Your task to perform on an android device: toggle location history Image 0: 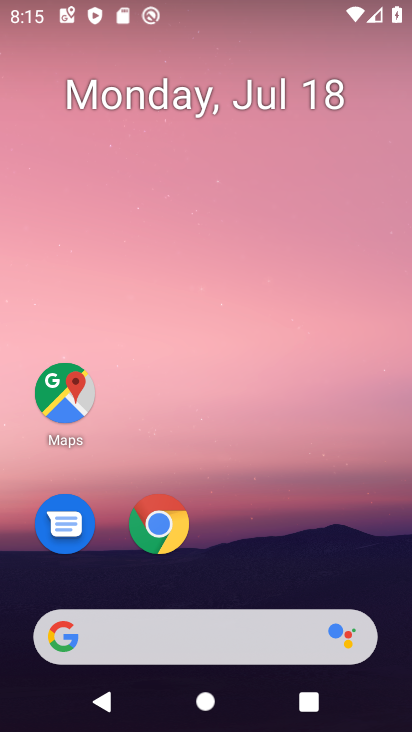
Step 0: drag from (261, 550) to (236, 108)
Your task to perform on an android device: toggle location history Image 1: 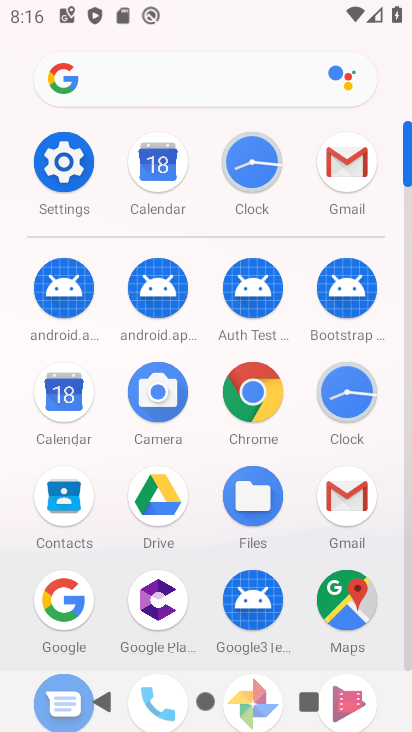
Step 1: click (69, 165)
Your task to perform on an android device: toggle location history Image 2: 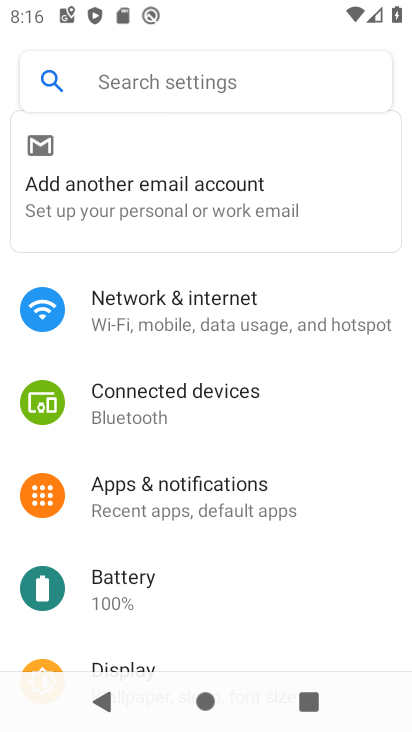
Step 2: drag from (202, 571) to (289, 184)
Your task to perform on an android device: toggle location history Image 3: 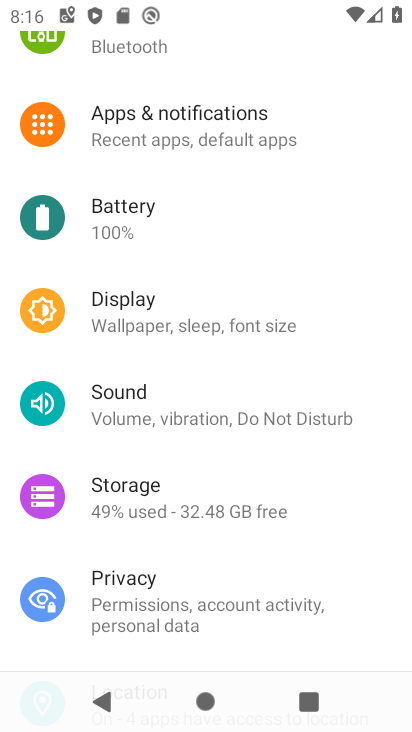
Step 3: drag from (258, 453) to (248, 96)
Your task to perform on an android device: toggle location history Image 4: 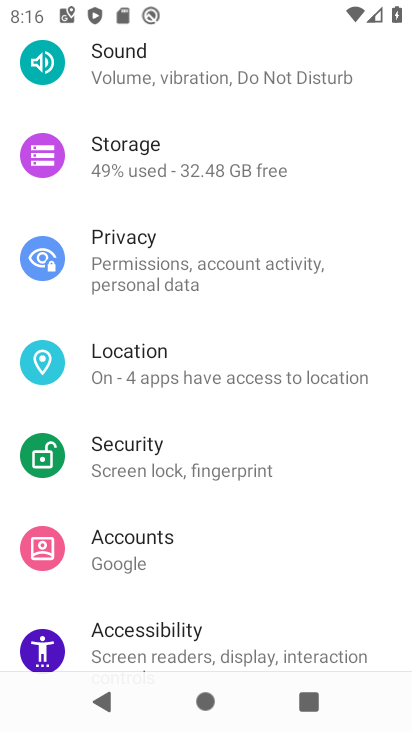
Step 4: click (218, 372)
Your task to perform on an android device: toggle location history Image 5: 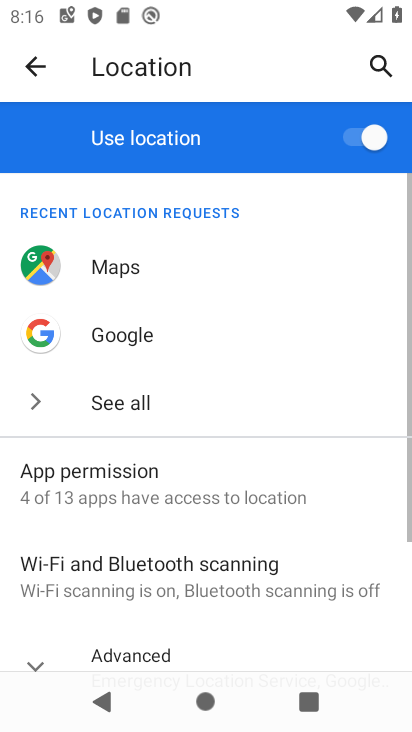
Step 5: drag from (209, 490) to (245, 221)
Your task to perform on an android device: toggle location history Image 6: 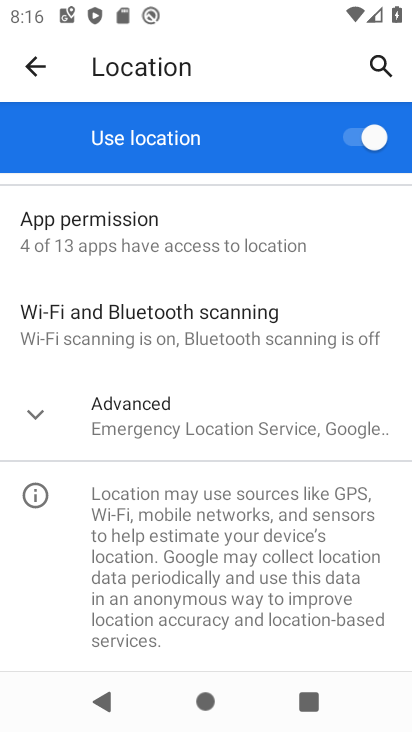
Step 6: click (34, 410)
Your task to perform on an android device: toggle location history Image 7: 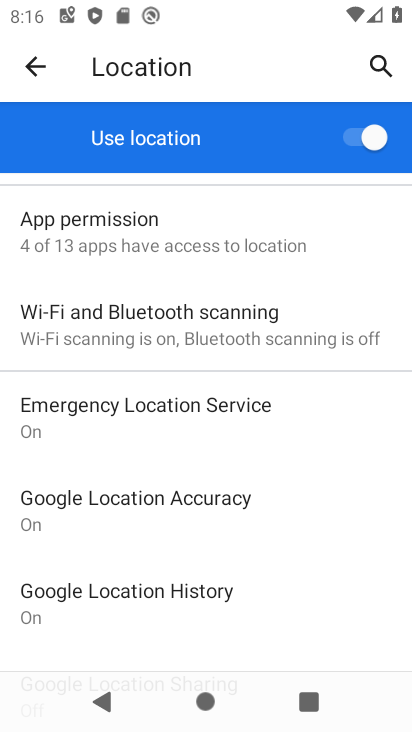
Step 7: click (137, 596)
Your task to perform on an android device: toggle location history Image 8: 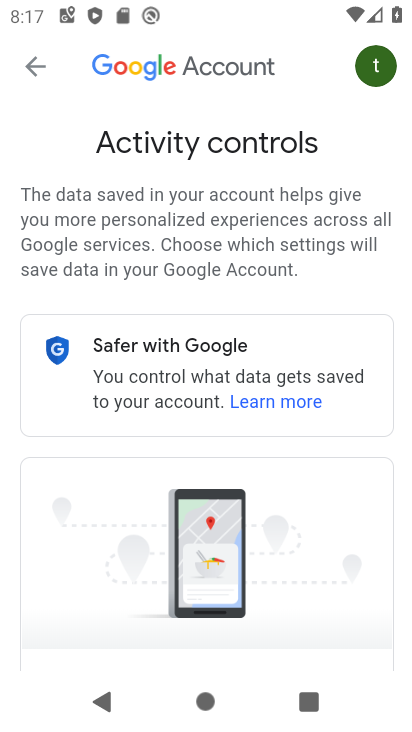
Step 8: drag from (276, 557) to (288, 149)
Your task to perform on an android device: toggle location history Image 9: 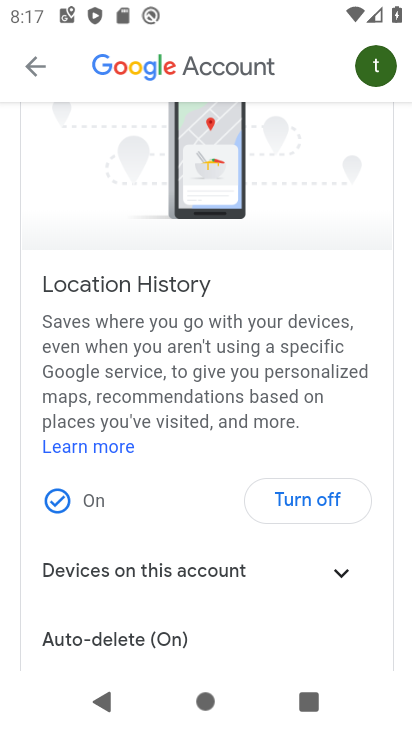
Step 9: click (308, 498)
Your task to perform on an android device: toggle location history Image 10: 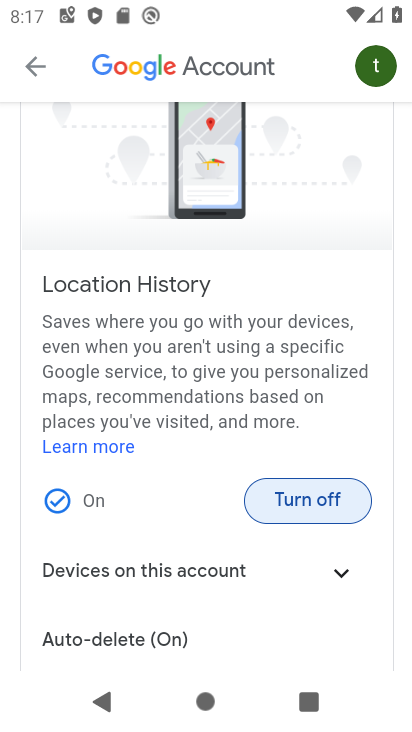
Step 10: click (309, 500)
Your task to perform on an android device: toggle location history Image 11: 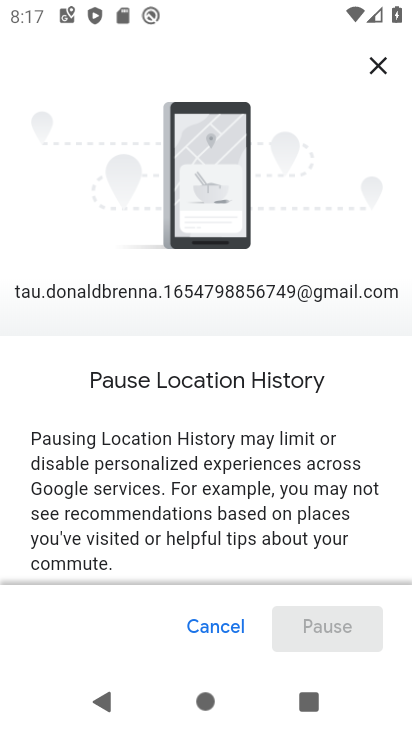
Step 11: drag from (258, 520) to (241, 0)
Your task to perform on an android device: toggle location history Image 12: 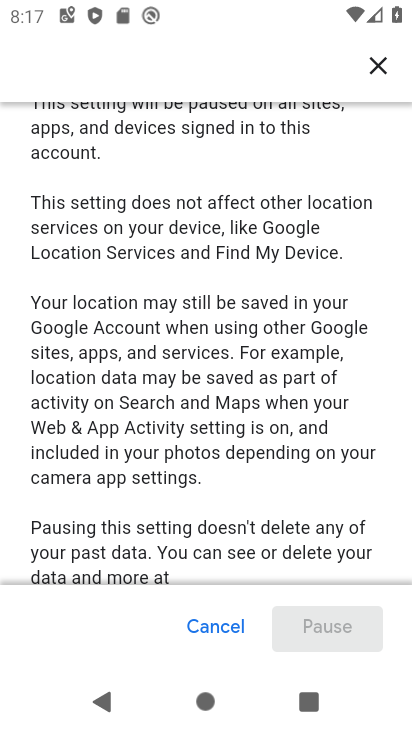
Step 12: drag from (251, 468) to (255, 74)
Your task to perform on an android device: toggle location history Image 13: 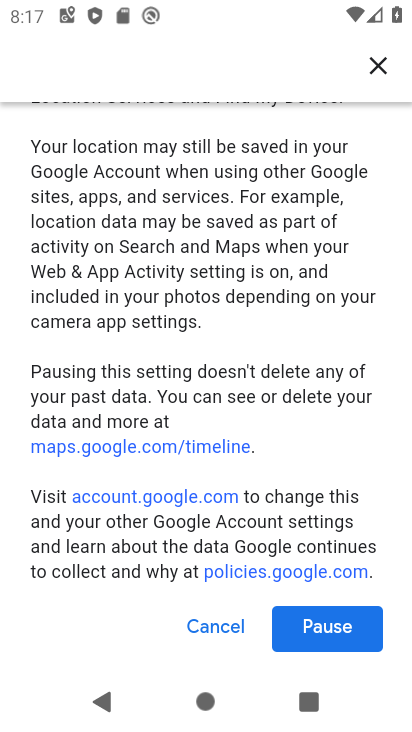
Step 13: click (353, 629)
Your task to perform on an android device: toggle location history Image 14: 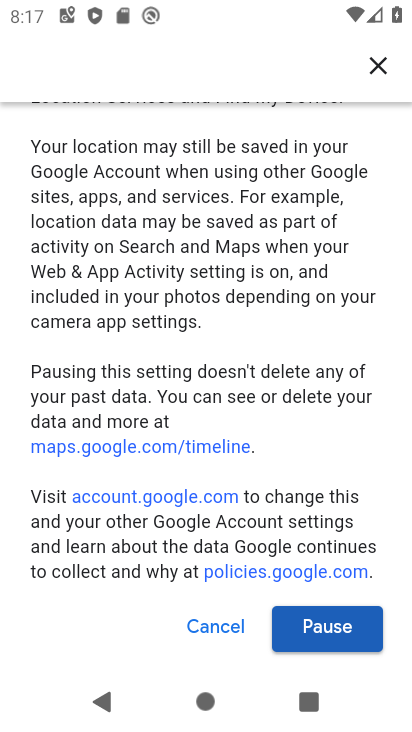
Step 14: click (353, 626)
Your task to perform on an android device: toggle location history Image 15: 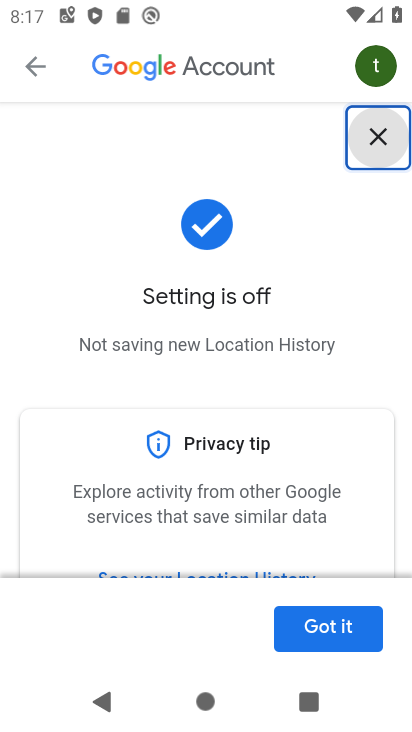
Step 15: click (353, 626)
Your task to perform on an android device: toggle location history Image 16: 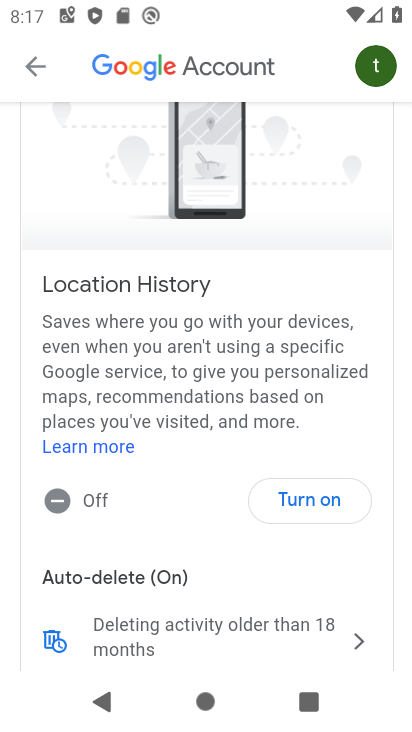
Step 16: task complete